Your task to perform on an android device: open a new tab in the chrome app Image 0: 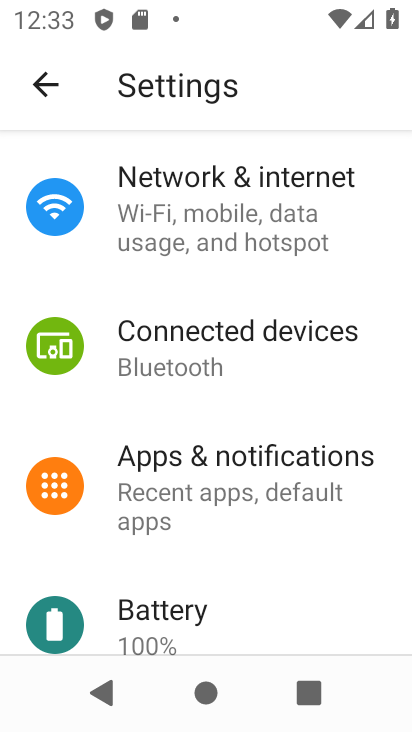
Step 0: press back button
Your task to perform on an android device: open a new tab in the chrome app Image 1: 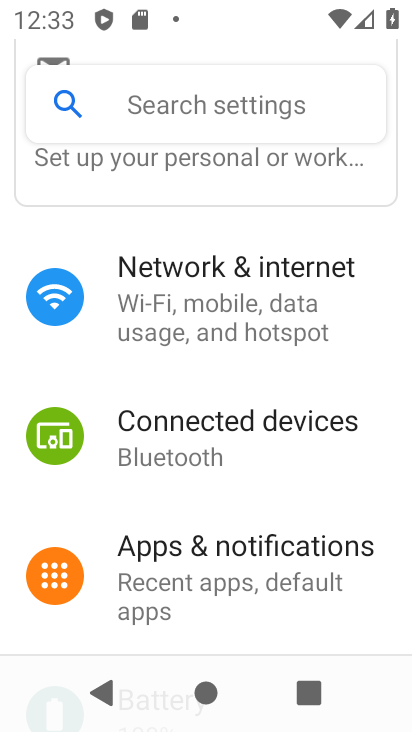
Step 1: press back button
Your task to perform on an android device: open a new tab in the chrome app Image 2: 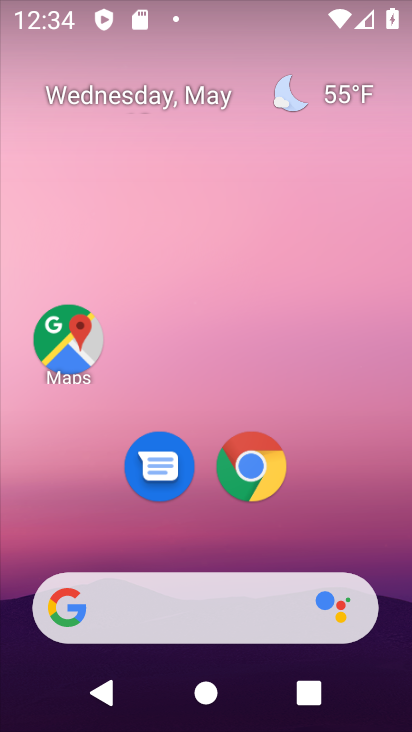
Step 2: click (251, 468)
Your task to perform on an android device: open a new tab in the chrome app Image 3: 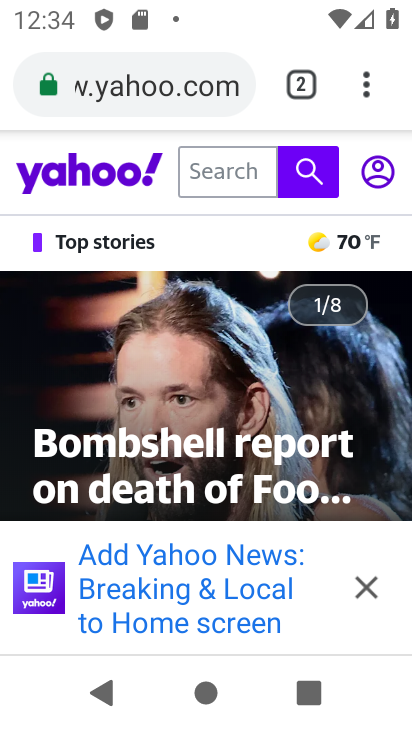
Step 3: click (369, 83)
Your task to perform on an android device: open a new tab in the chrome app Image 4: 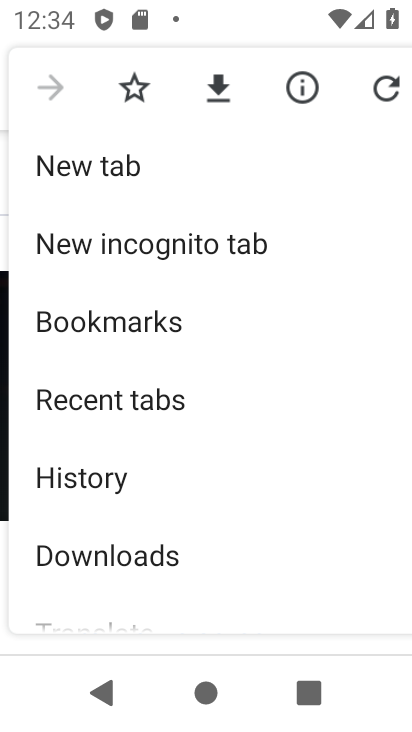
Step 4: click (122, 167)
Your task to perform on an android device: open a new tab in the chrome app Image 5: 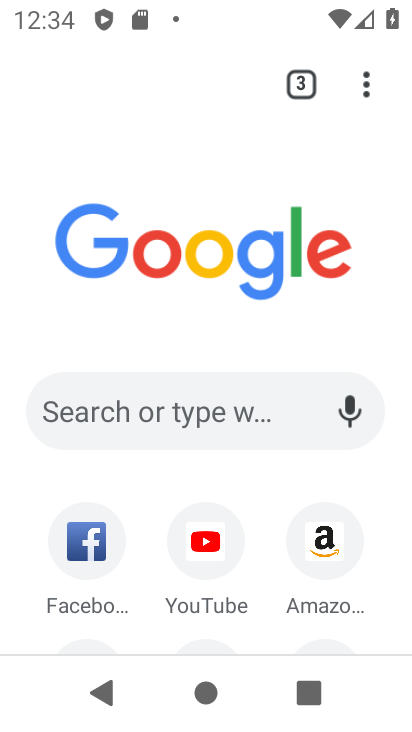
Step 5: task complete